Your task to perform on an android device: open the mobile data screen to see how much data has been used Image 0: 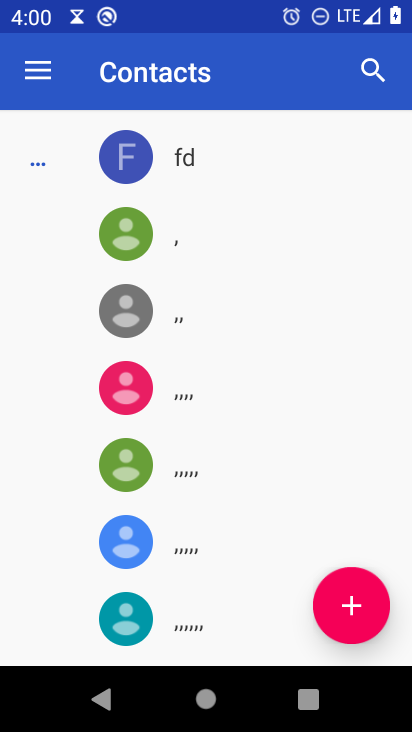
Step 0: press home button
Your task to perform on an android device: open the mobile data screen to see how much data has been used Image 1: 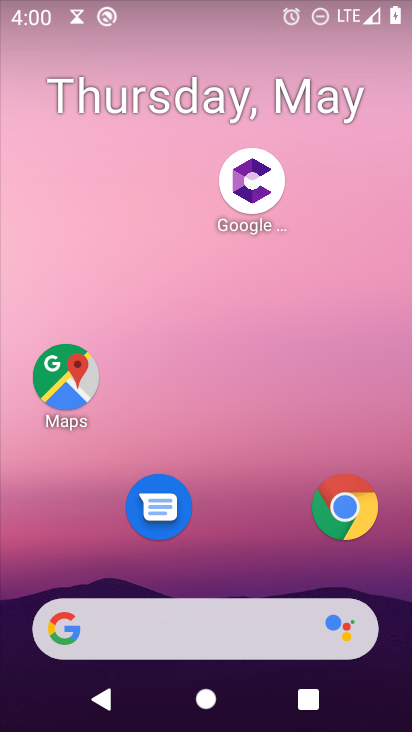
Step 1: drag from (238, 514) to (232, 114)
Your task to perform on an android device: open the mobile data screen to see how much data has been used Image 2: 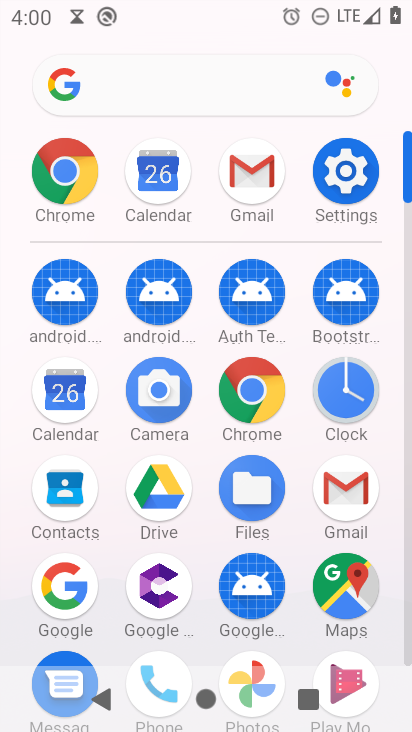
Step 2: click (350, 173)
Your task to perform on an android device: open the mobile data screen to see how much data has been used Image 3: 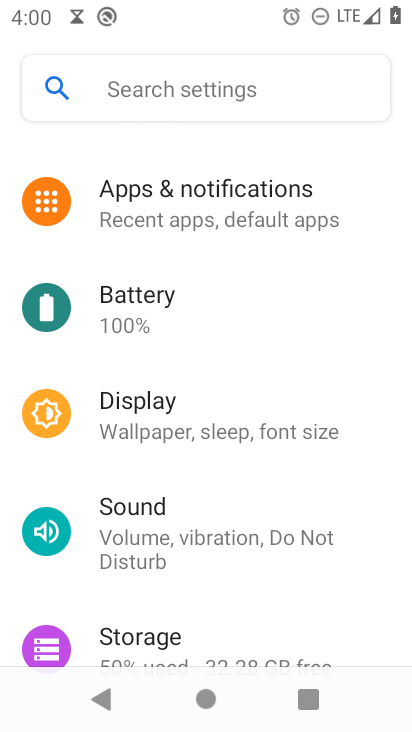
Step 3: drag from (212, 171) to (180, 569)
Your task to perform on an android device: open the mobile data screen to see how much data has been used Image 4: 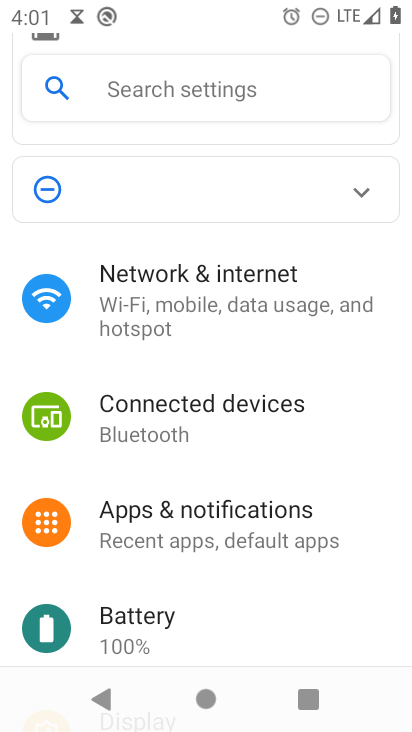
Step 4: click (208, 304)
Your task to perform on an android device: open the mobile data screen to see how much data has been used Image 5: 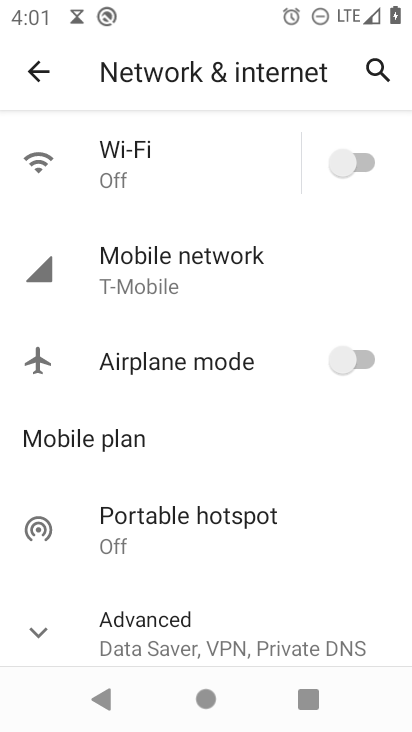
Step 5: click (154, 267)
Your task to perform on an android device: open the mobile data screen to see how much data has been used Image 6: 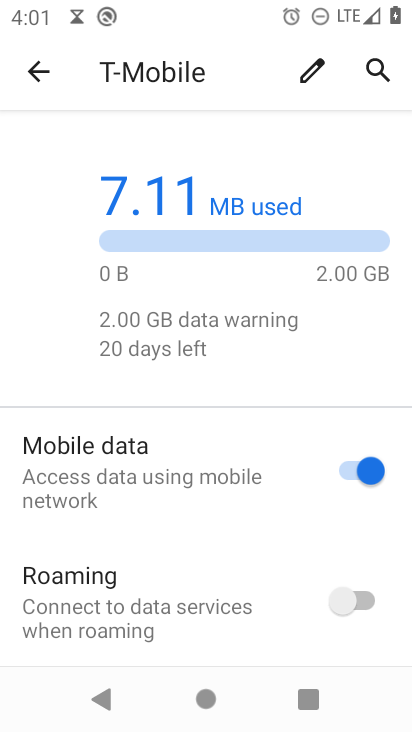
Step 6: drag from (173, 356) to (174, 100)
Your task to perform on an android device: open the mobile data screen to see how much data has been used Image 7: 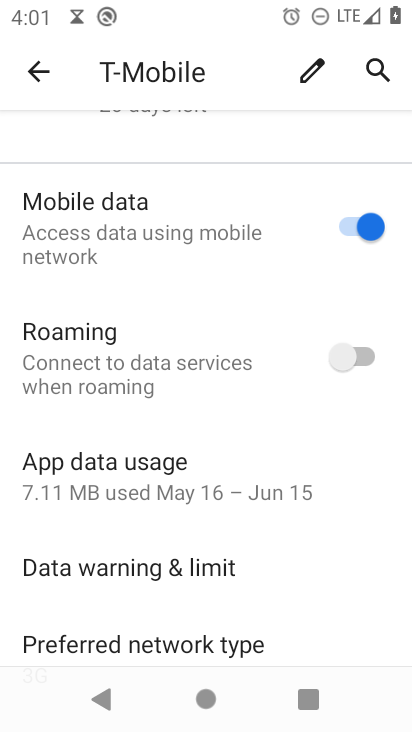
Step 7: click (120, 465)
Your task to perform on an android device: open the mobile data screen to see how much data has been used Image 8: 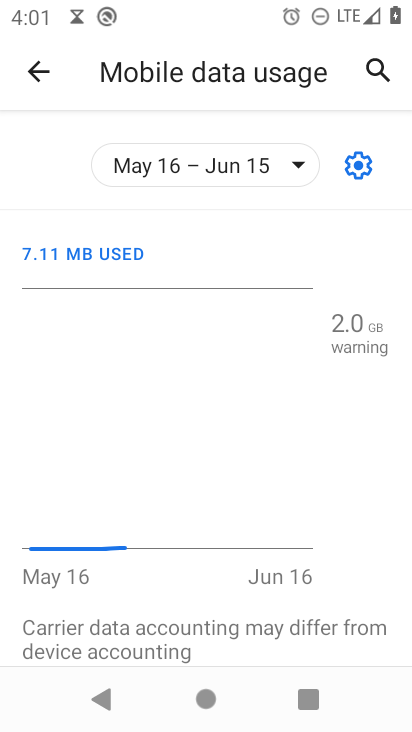
Step 8: task complete